Your task to perform on an android device: Check the news Image 0: 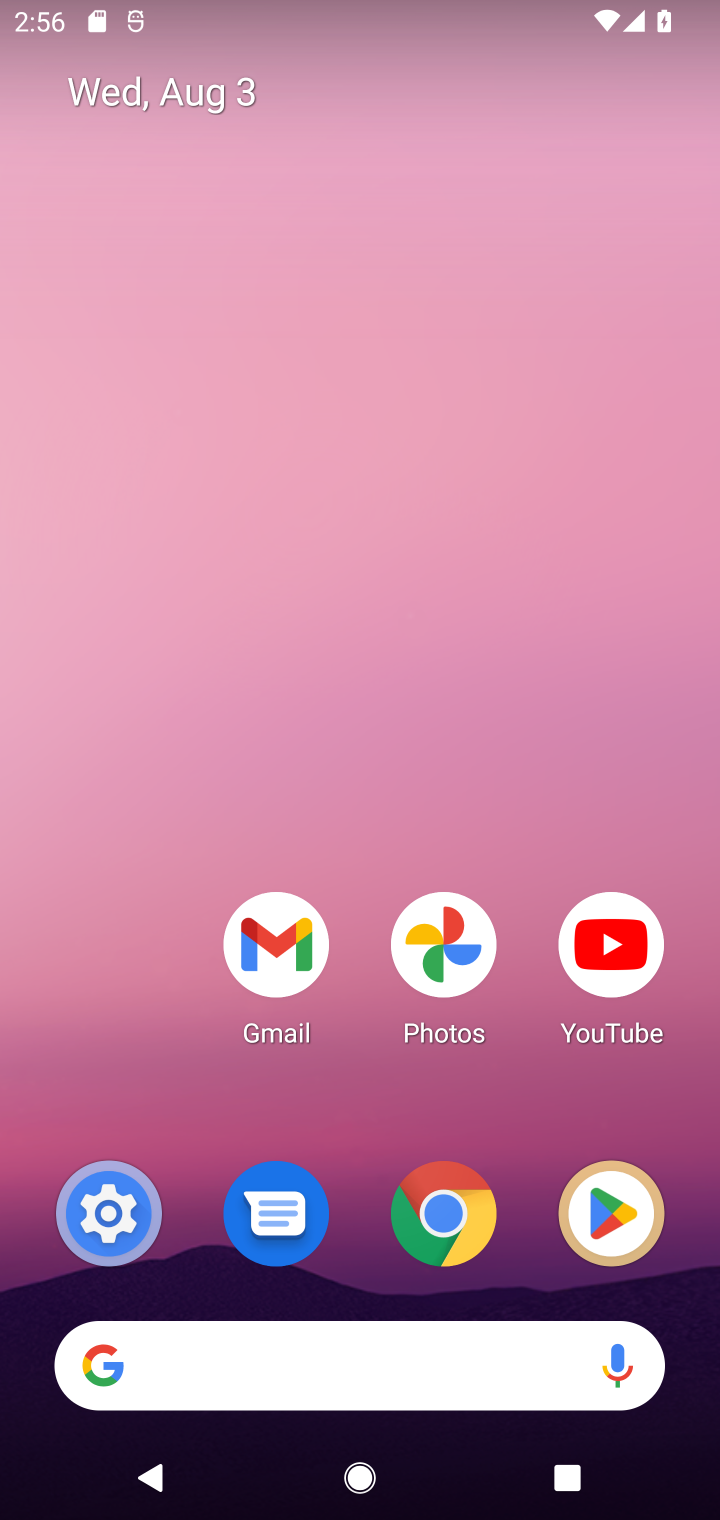
Step 0: drag from (340, 1123) to (381, 218)
Your task to perform on an android device: Check the news Image 1: 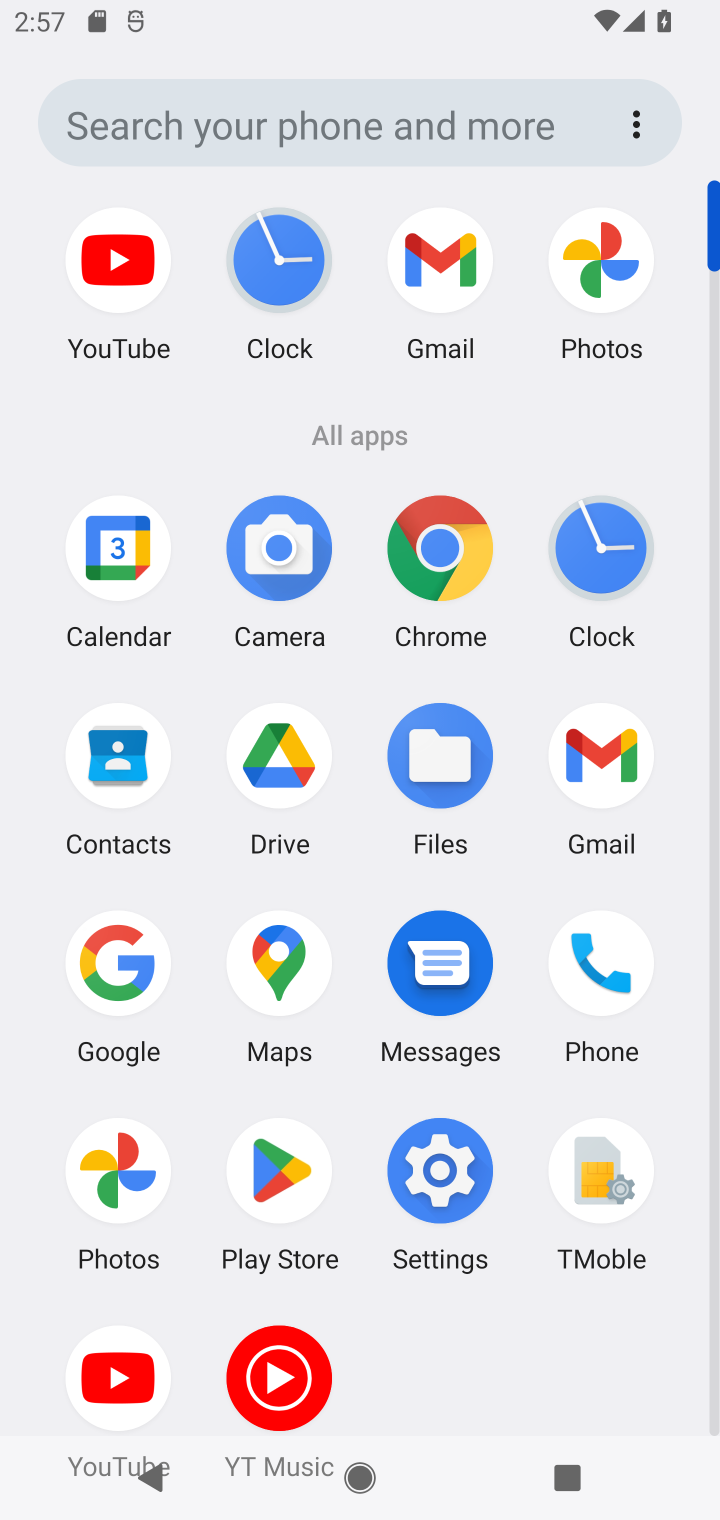
Step 1: click (461, 533)
Your task to perform on an android device: Check the news Image 2: 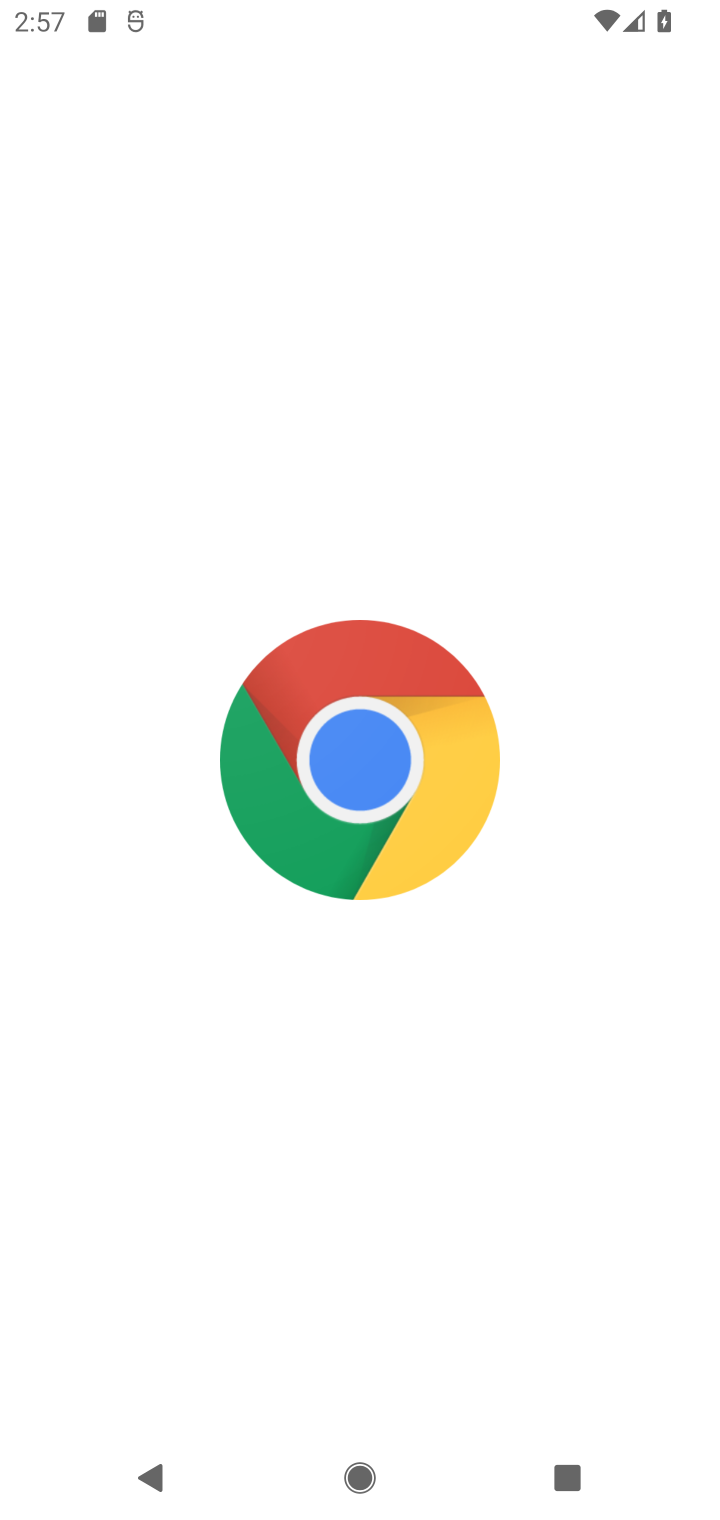
Step 2: click (464, 1182)
Your task to perform on an android device: Check the news Image 3: 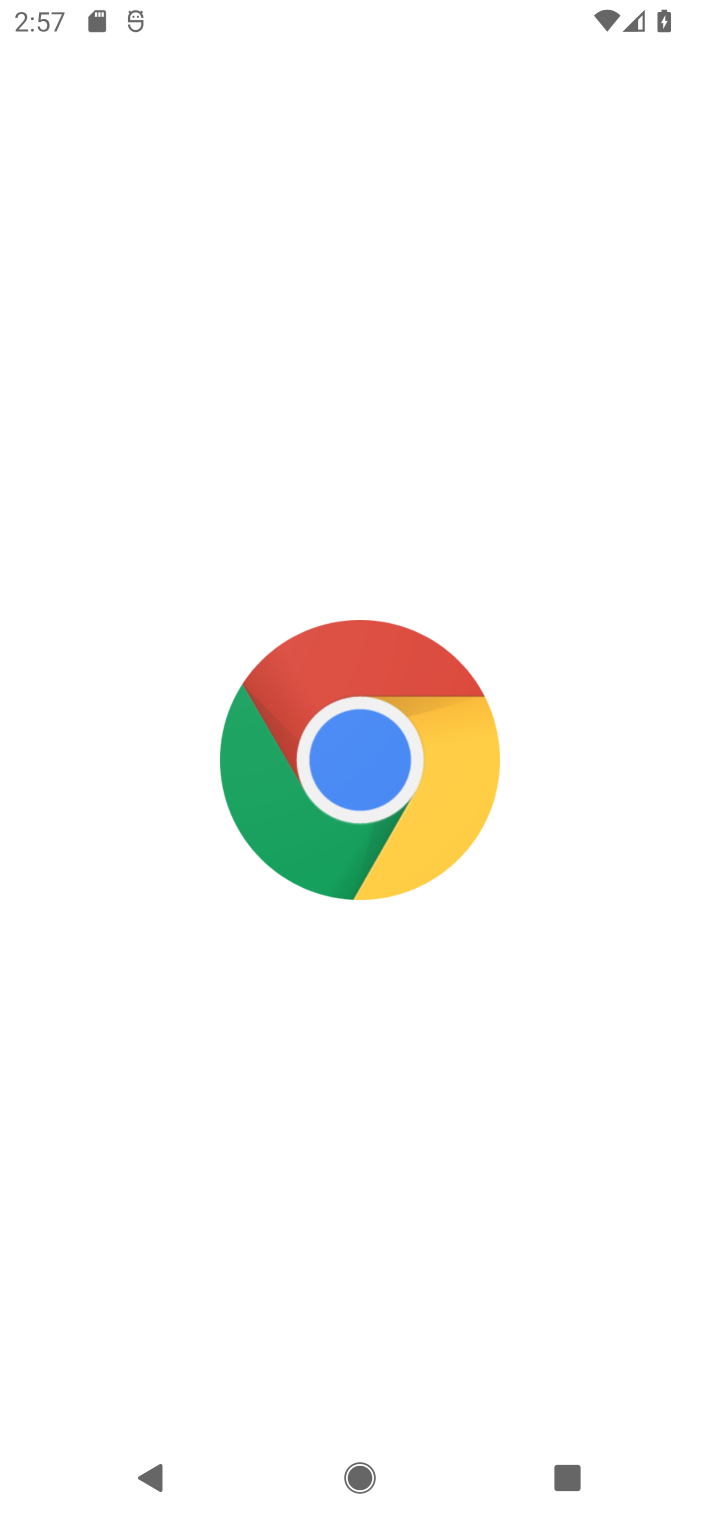
Step 3: task complete